Your task to perform on an android device: Go to notification settings Image 0: 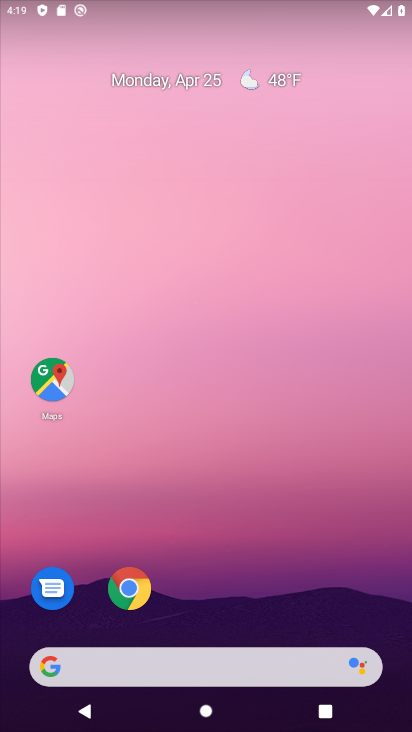
Step 0: drag from (220, 631) to (266, 134)
Your task to perform on an android device: Go to notification settings Image 1: 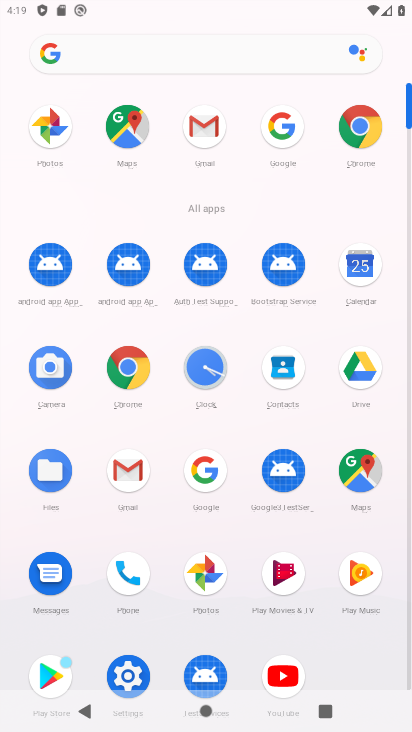
Step 1: click (135, 683)
Your task to perform on an android device: Go to notification settings Image 2: 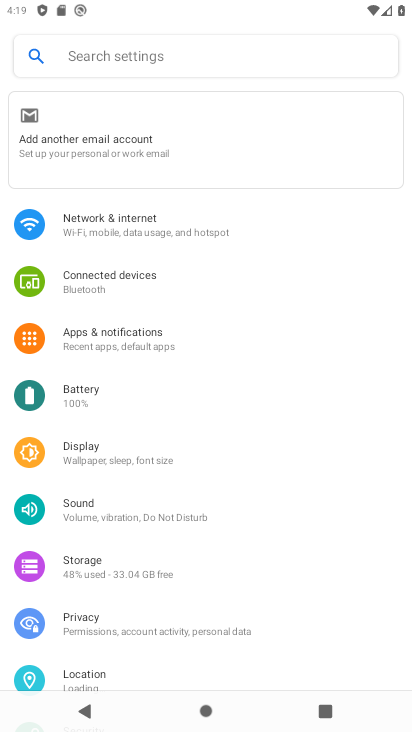
Step 2: click (182, 338)
Your task to perform on an android device: Go to notification settings Image 3: 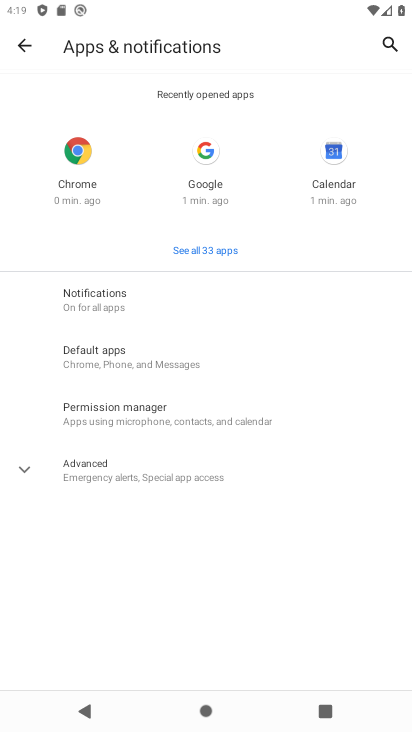
Step 3: click (161, 306)
Your task to perform on an android device: Go to notification settings Image 4: 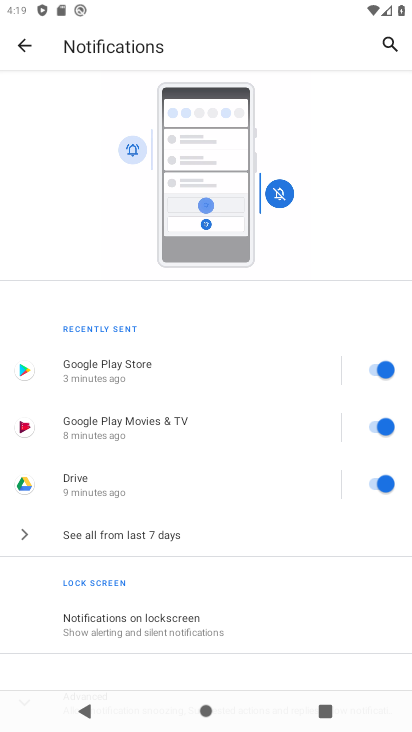
Step 4: task complete